Your task to perform on an android device: change the clock style Image 0: 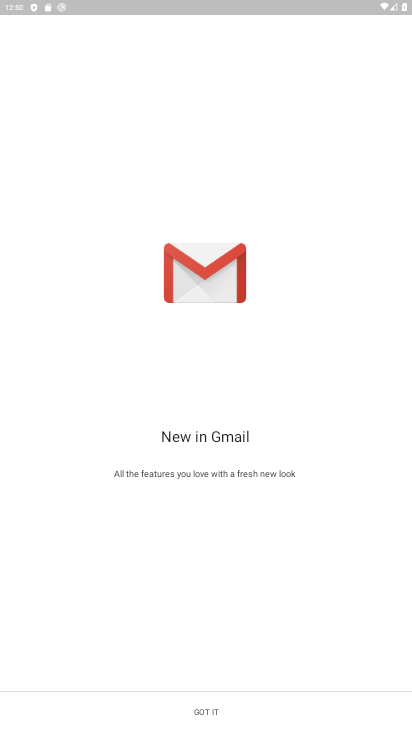
Step 0: press home button
Your task to perform on an android device: change the clock style Image 1: 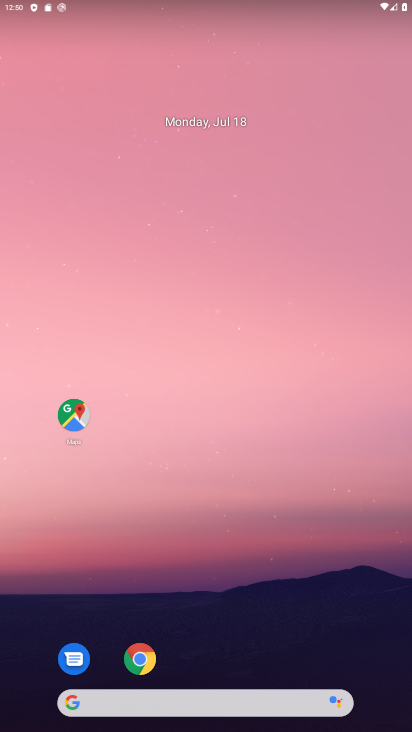
Step 1: drag from (273, 330) to (295, 135)
Your task to perform on an android device: change the clock style Image 2: 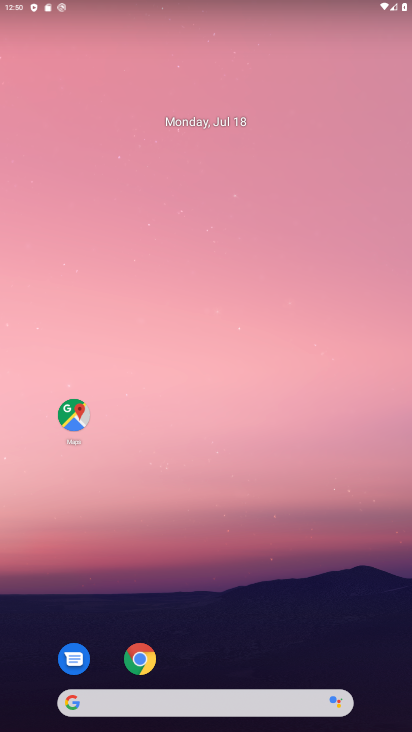
Step 2: drag from (285, 644) to (359, 122)
Your task to perform on an android device: change the clock style Image 3: 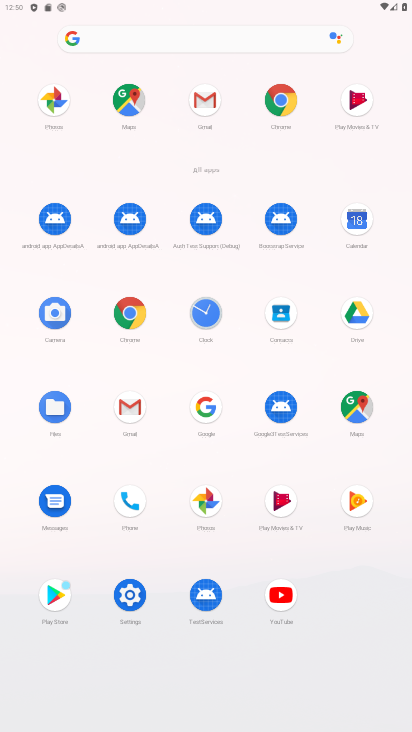
Step 3: click (205, 304)
Your task to perform on an android device: change the clock style Image 4: 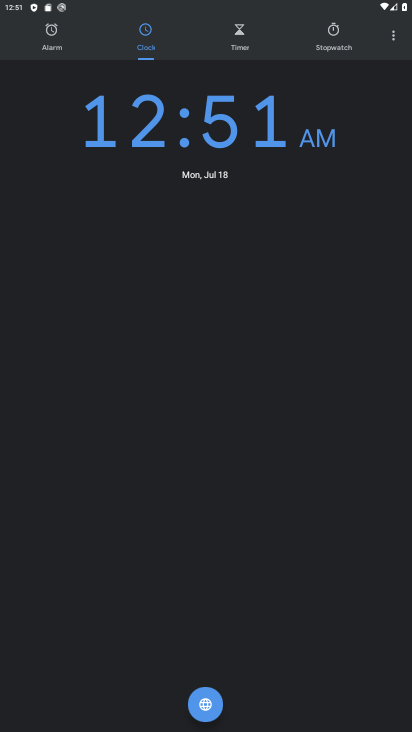
Step 4: click (391, 39)
Your task to perform on an android device: change the clock style Image 5: 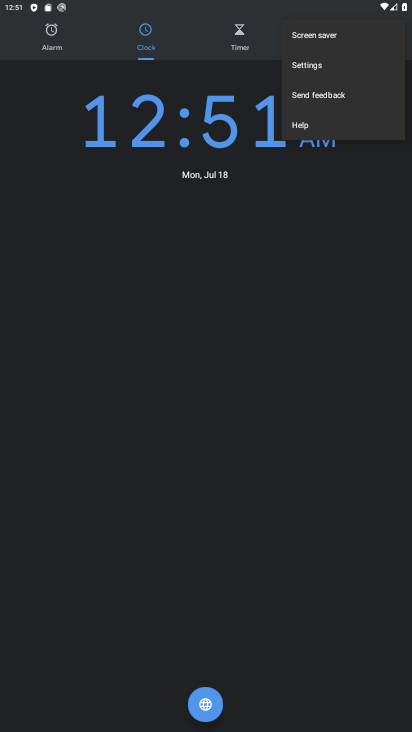
Step 5: click (349, 67)
Your task to perform on an android device: change the clock style Image 6: 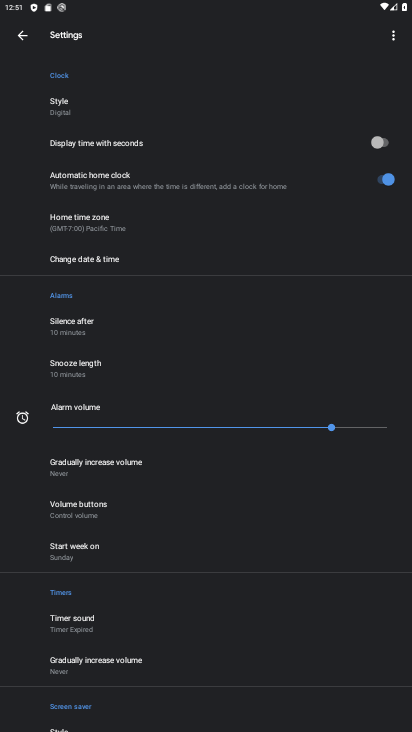
Step 6: click (74, 111)
Your task to perform on an android device: change the clock style Image 7: 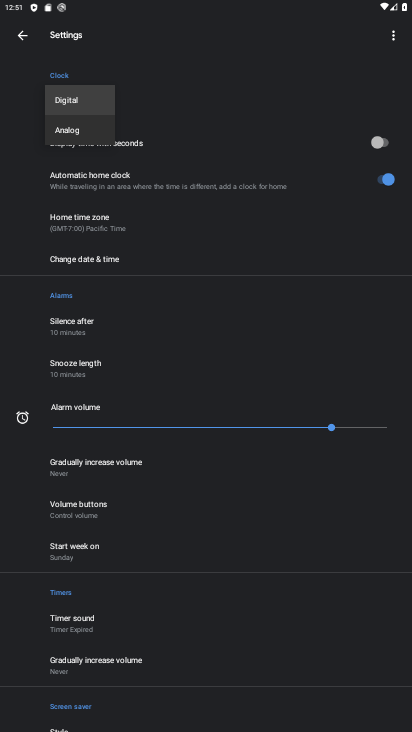
Step 7: click (82, 134)
Your task to perform on an android device: change the clock style Image 8: 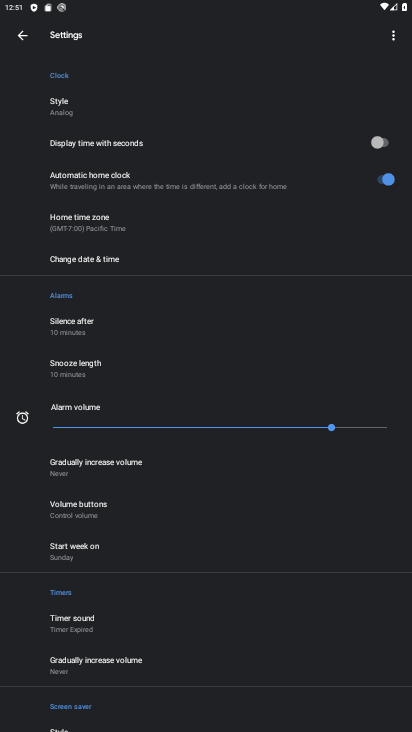
Step 8: task complete